Your task to perform on an android device: Open settings Image 0: 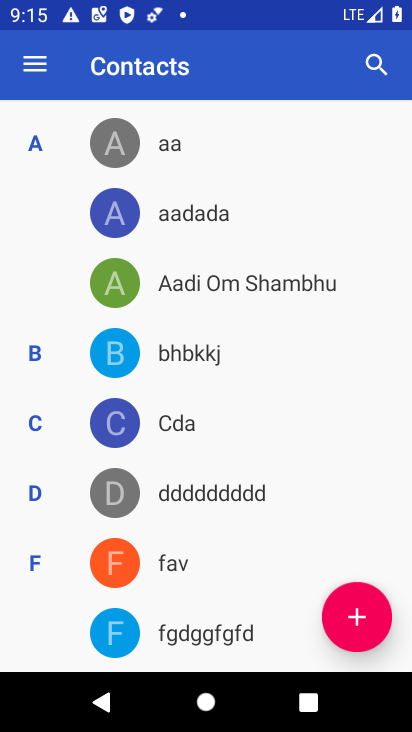
Step 0: press home button
Your task to perform on an android device: Open settings Image 1: 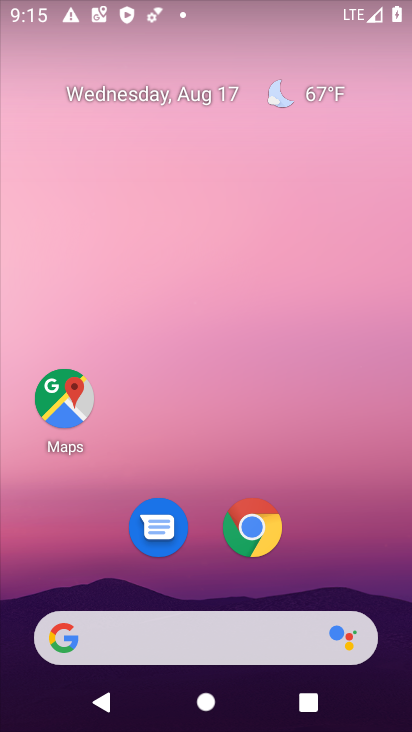
Step 1: drag from (213, 570) to (252, 211)
Your task to perform on an android device: Open settings Image 2: 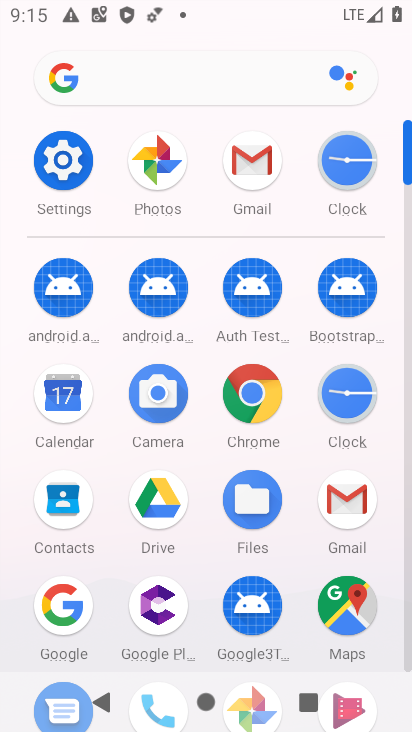
Step 2: click (59, 153)
Your task to perform on an android device: Open settings Image 3: 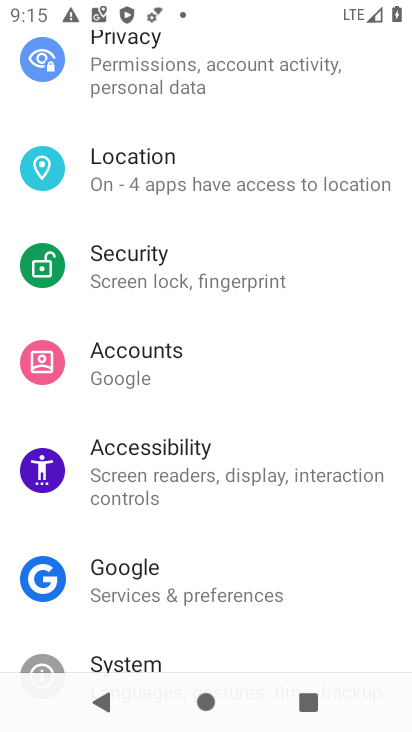
Step 3: task complete